Your task to perform on an android device: What's the weather today? Image 0: 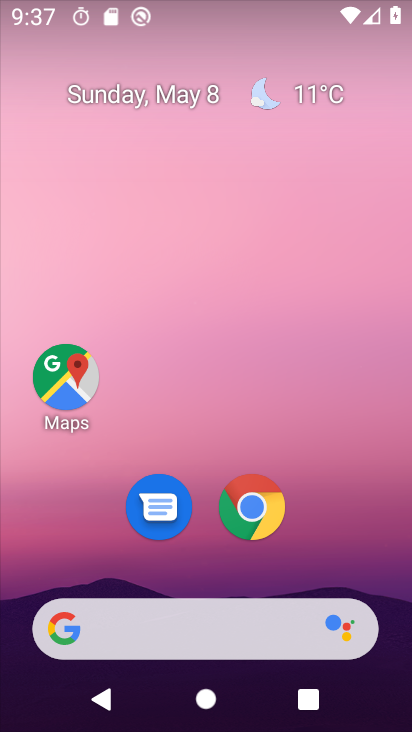
Step 0: drag from (348, 527) to (312, 152)
Your task to perform on an android device: What's the weather today? Image 1: 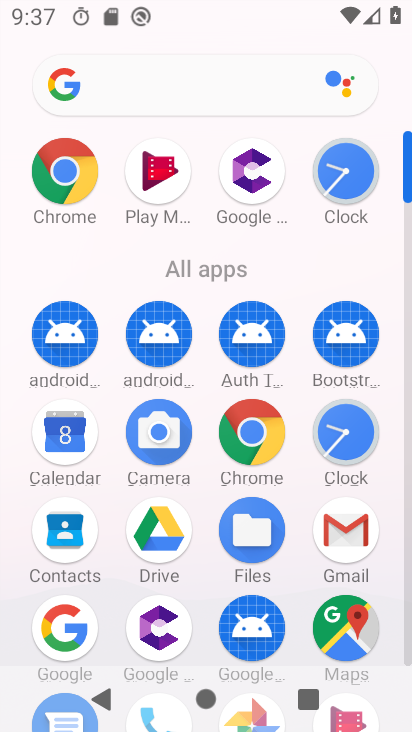
Step 1: press home button
Your task to perform on an android device: What's the weather today? Image 2: 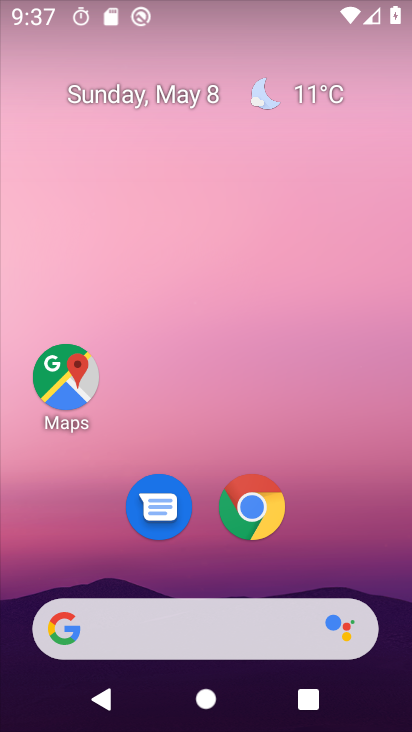
Step 2: click (316, 97)
Your task to perform on an android device: What's the weather today? Image 3: 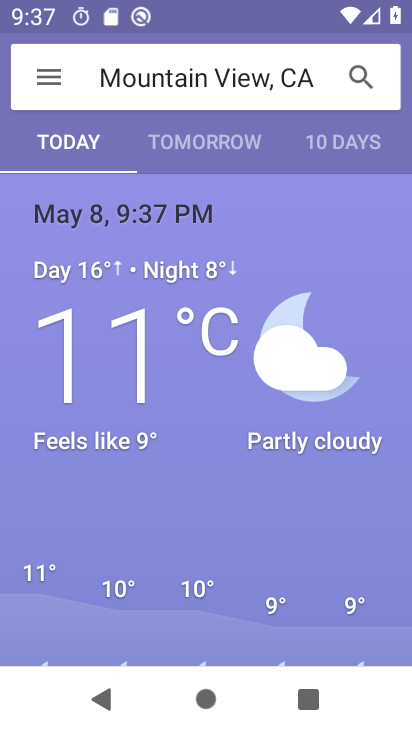
Step 3: task complete